Your task to perform on an android device: Show me the alarms in the clock app Image 0: 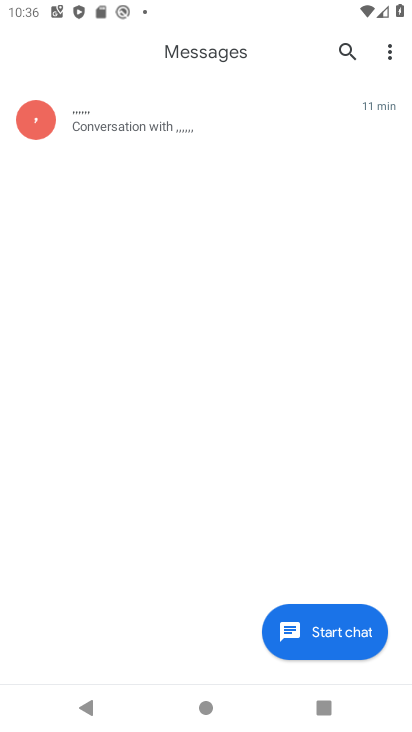
Step 0: press back button
Your task to perform on an android device: Show me the alarms in the clock app Image 1: 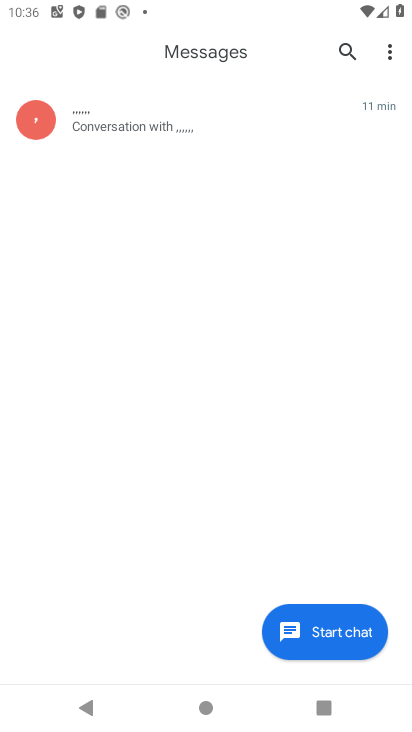
Step 1: press back button
Your task to perform on an android device: Show me the alarms in the clock app Image 2: 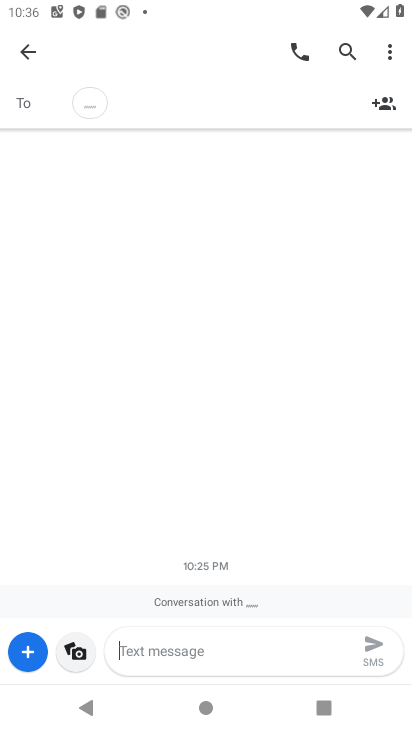
Step 2: press back button
Your task to perform on an android device: Show me the alarms in the clock app Image 3: 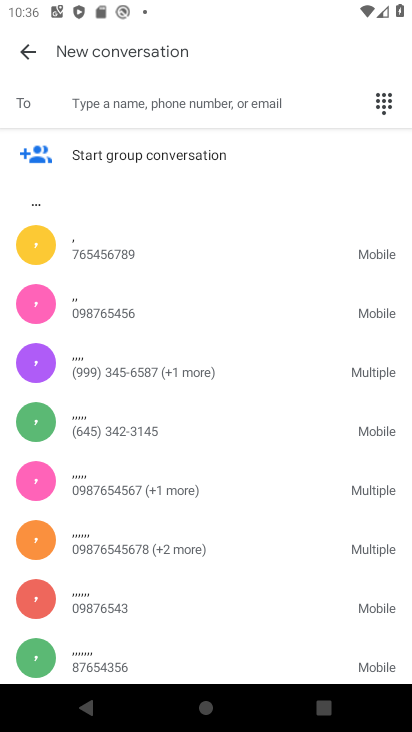
Step 3: press back button
Your task to perform on an android device: Show me the alarms in the clock app Image 4: 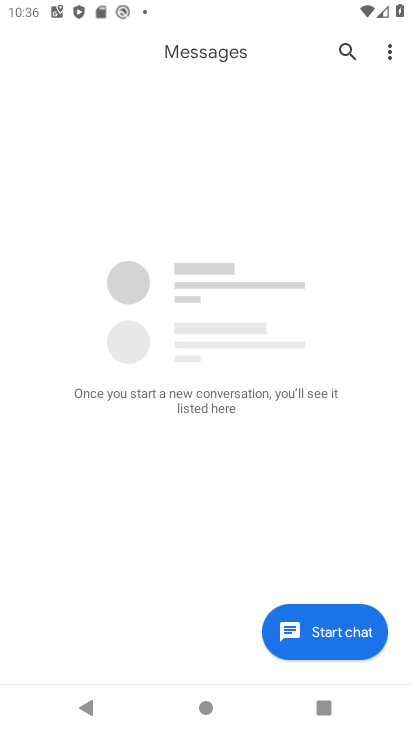
Step 4: click (10, 45)
Your task to perform on an android device: Show me the alarms in the clock app Image 5: 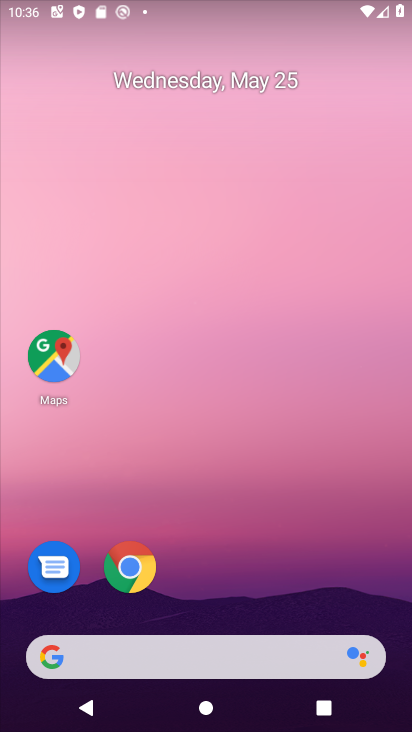
Step 5: drag from (269, 604) to (257, 55)
Your task to perform on an android device: Show me the alarms in the clock app Image 6: 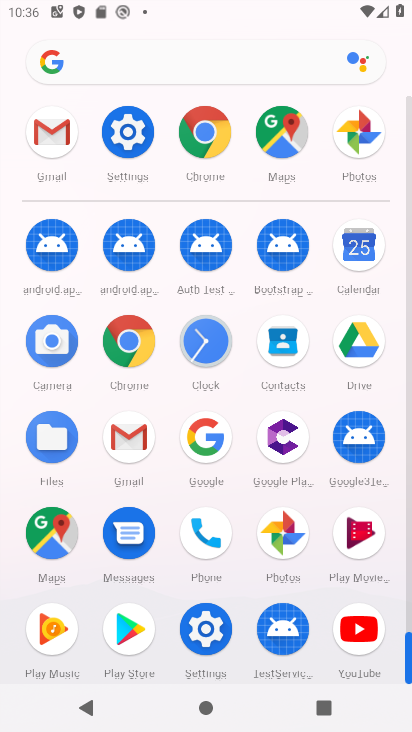
Step 6: click (215, 336)
Your task to perform on an android device: Show me the alarms in the clock app Image 7: 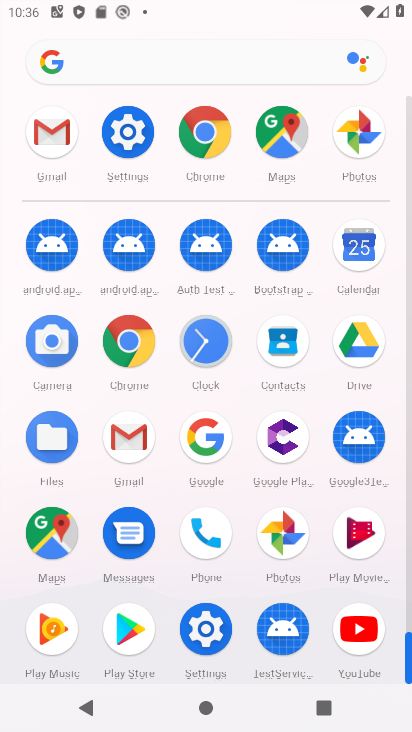
Step 7: click (217, 335)
Your task to perform on an android device: Show me the alarms in the clock app Image 8: 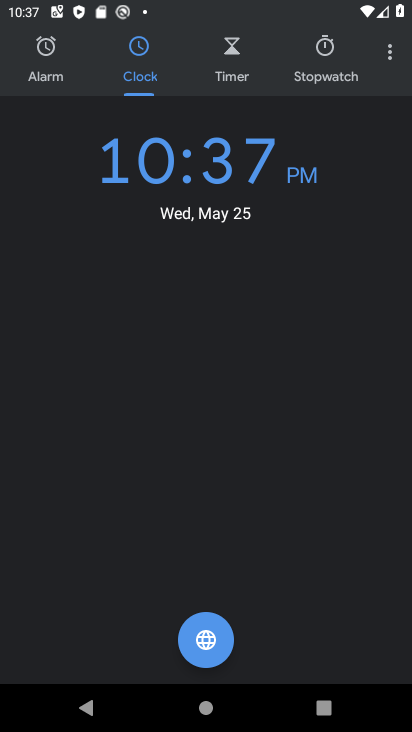
Step 8: click (50, 51)
Your task to perform on an android device: Show me the alarms in the clock app Image 9: 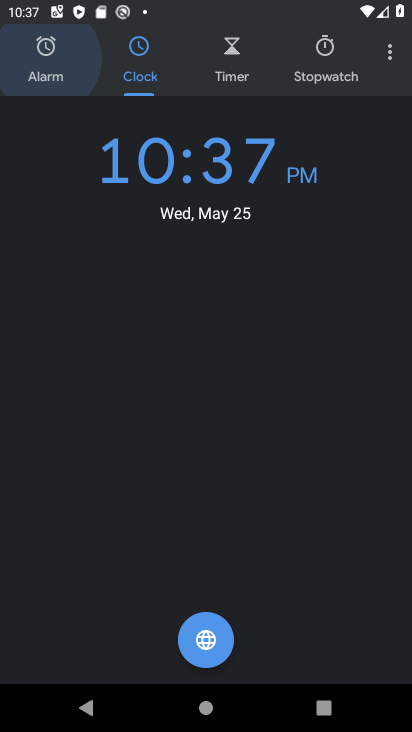
Step 9: click (50, 51)
Your task to perform on an android device: Show me the alarms in the clock app Image 10: 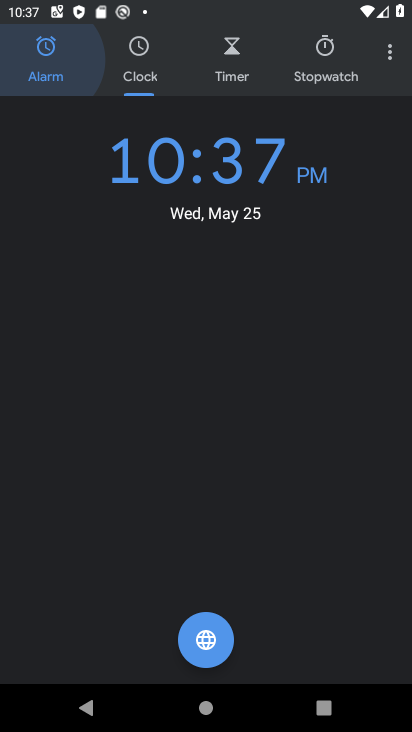
Step 10: click (50, 51)
Your task to perform on an android device: Show me the alarms in the clock app Image 11: 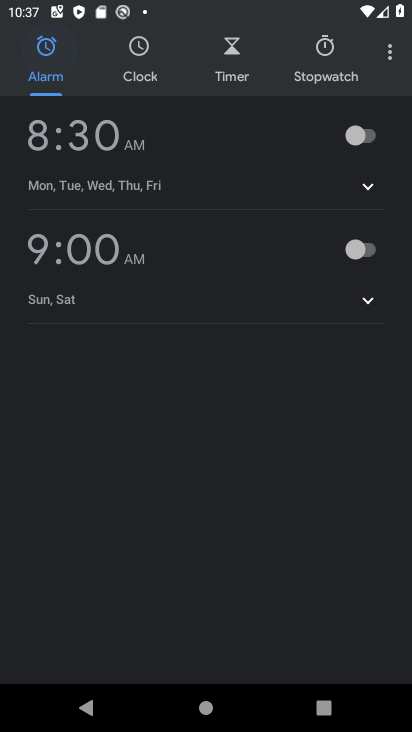
Step 11: click (50, 51)
Your task to perform on an android device: Show me the alarms in the clock app Image 12: 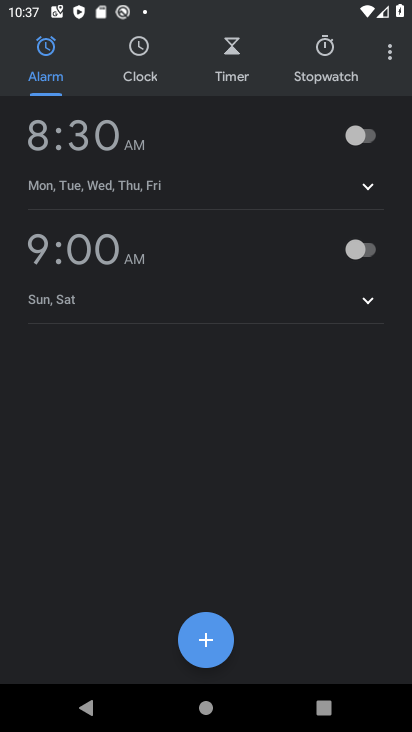
Step 12: click (50, 51)
Your task to perform on an android device: Show me the alarms in the clock app Image 13: 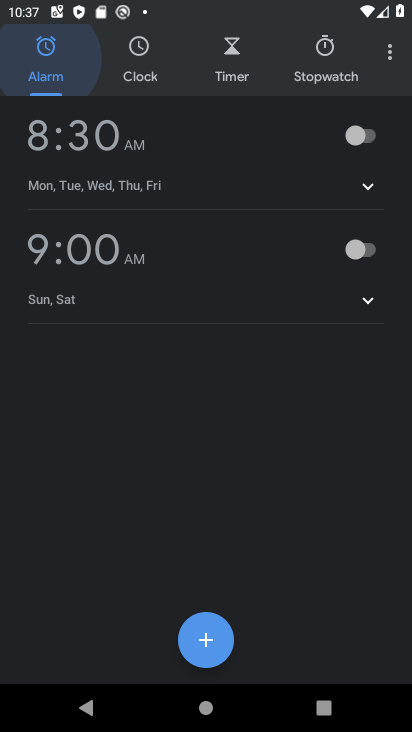
Step 13: click (50, 51)
Your task to perform on an android device: Show me the alarms in the clock app Image 14: 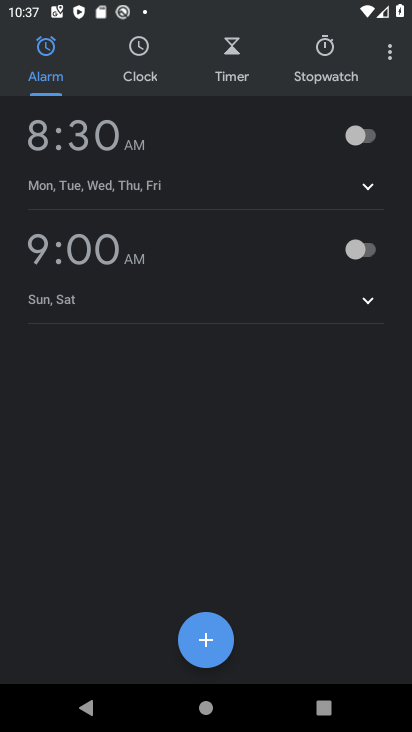
Step 14: task complete